Your task to perform on an android device: check the backup settings in the google photos Image 0: 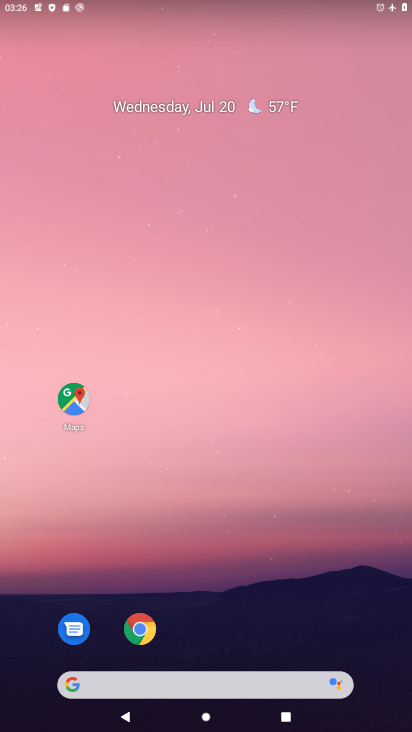
Step 0: drag from (383, 666) to (367, 71)
Your task to perform on an android device: check the backup settings in the google photos Image 1: 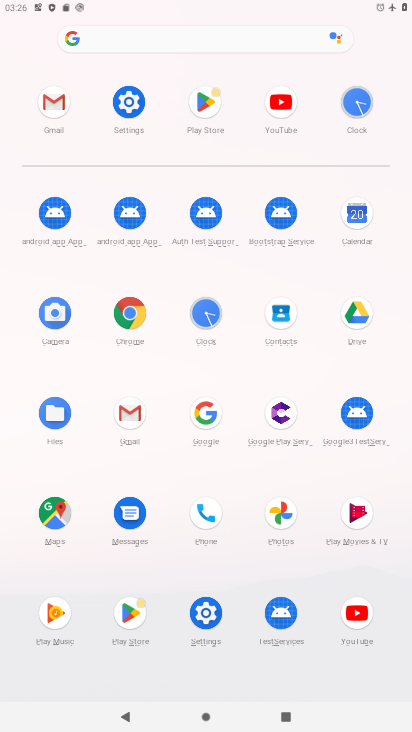
Step 1: click (282, 513)
Your task to perform on an android device: check the backup settings in the google photos Image 2: 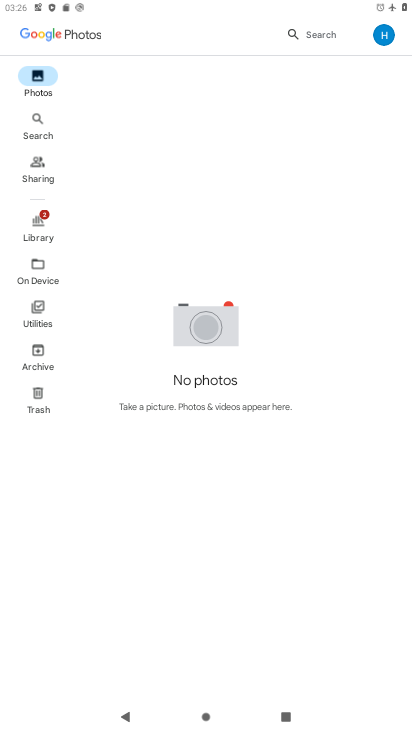
Step 2: click (381, 37)
Your task to perform on an android device: check the backup settings in the google photos Image 3: 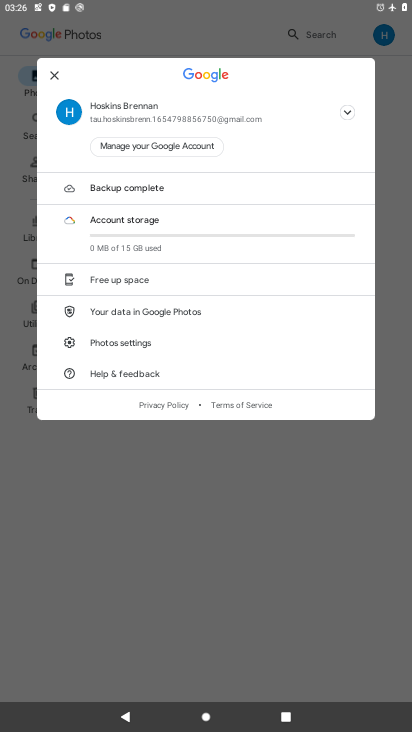
Step 3: click (102, 344)
Your task to perform on an android device: check the backup settings in the google photos Image 4: 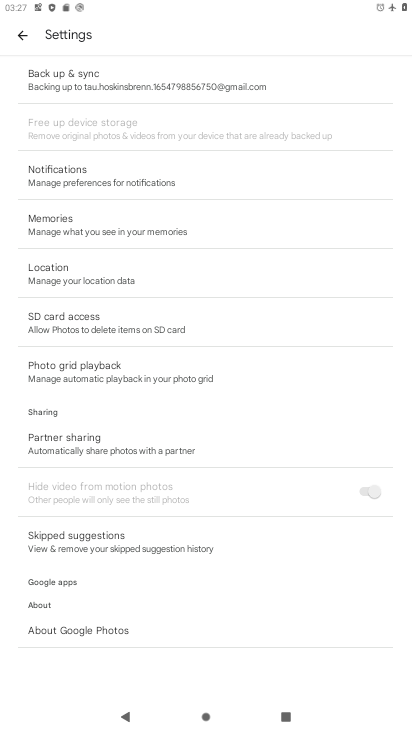
Step 4: click (89, 84)
Your task to perform on an android device: check the backup settings in the google photos Image 5: 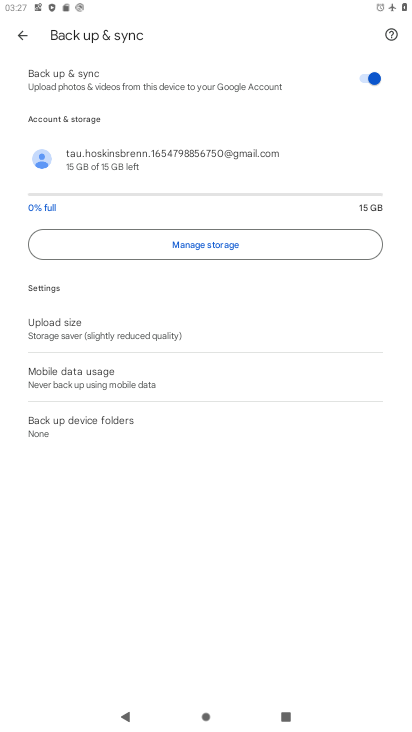
Step 5: task complete